Your task to perform on an android device: Check the weather Image 0: 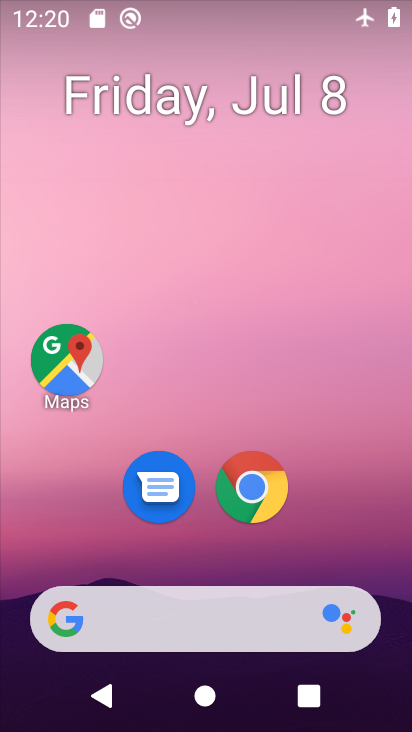
Step 0: click (264, 618)
Your task to perform on an android device: Check the weather Image 1: 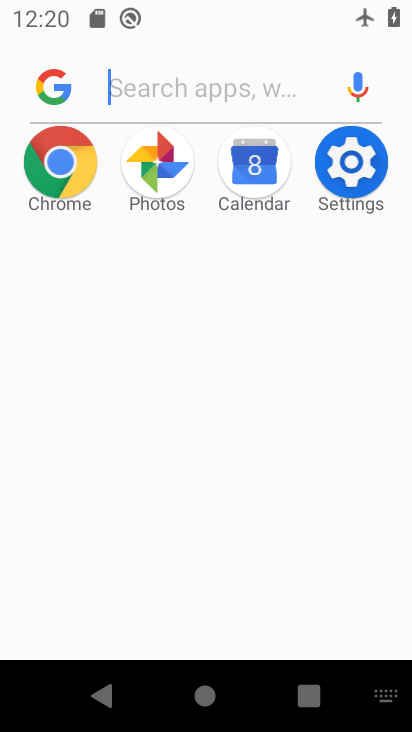
Step 1: type "weather"
Your task to perform on an android device: Check the weather Image 2: 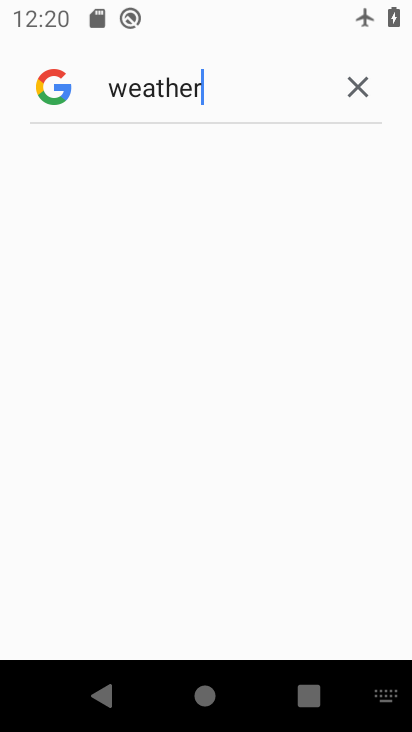
Step 2: task complete